Your task to perform on an android device: star an email in the gmail app Image 0: 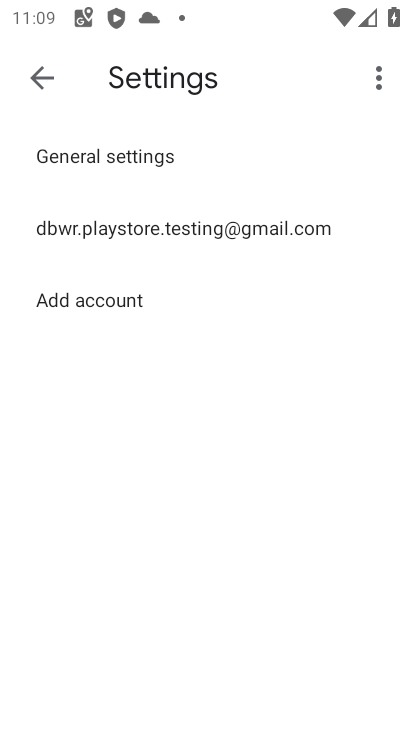
Step 0: click (53, 78)
Your task to perform on an android device: star an email in the gmail app Image 1: 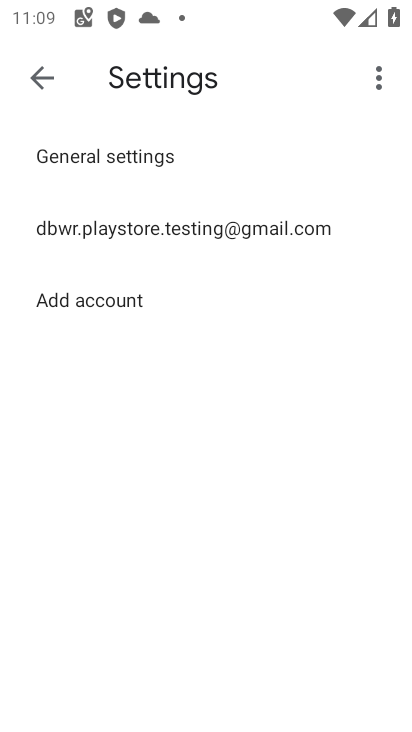
Step 1: click (61, 69)
Your task to perform on an android device: star an email in the gmail app Image 2: 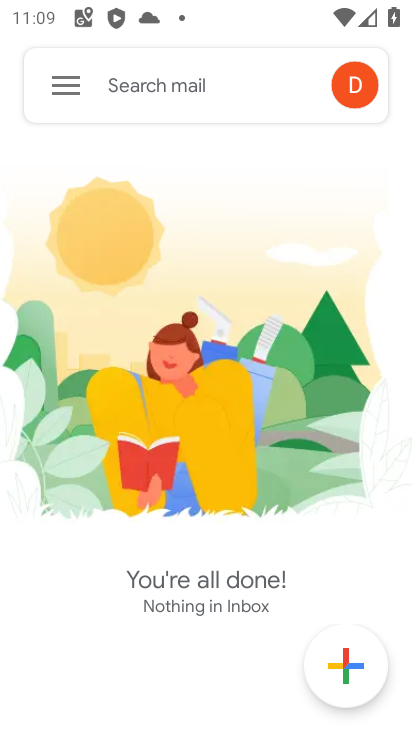
Step 2: task complete